Your task to perform on an android device: What's a good restaurant in Sacramento? Image 0: 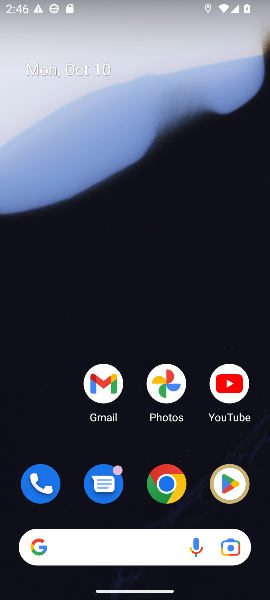
Step 0: click (182, 491)
Your task to perform on an android device: What's a good restaurant in Sacramento? Image 1: 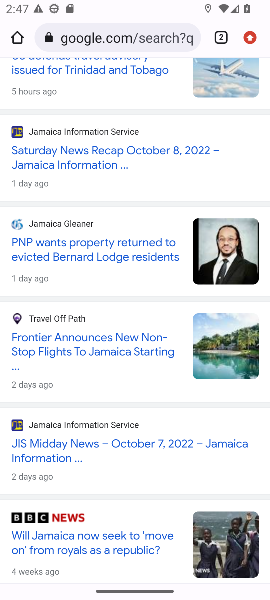
Step 1: drag from (192, 134) to (188, 462)
Your task to perform on an android device: What's a good restaurant in Sacramento? Image 2: 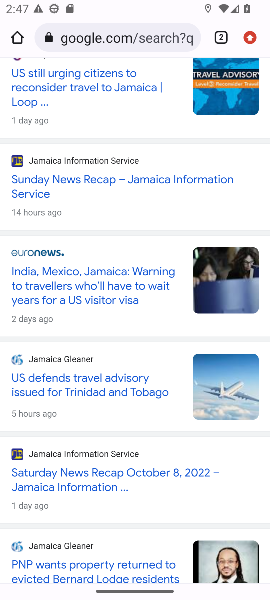
Step 2: drag from (96, 116) to (127, 390)
Your task to perform on an android device: What's a good restaurant in Sacramento? Image 3: 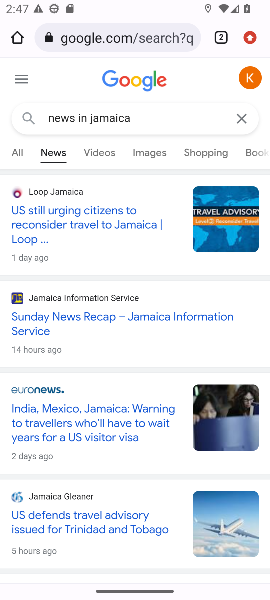
Step 3: click (142, 42)
Your task to perform on an android device: What's a good restaurant in Sacramento? Image 4: 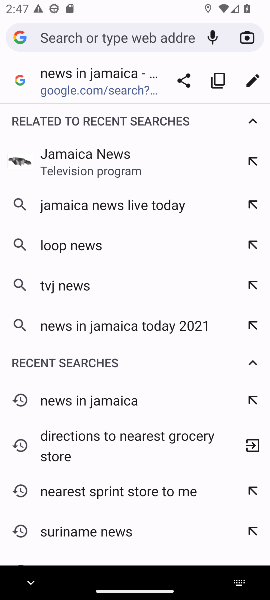
Step 4: type "good restaurant in sacramento"
Your task to perform on an android device: What's a good restaurant in Sacramento? Image 5: 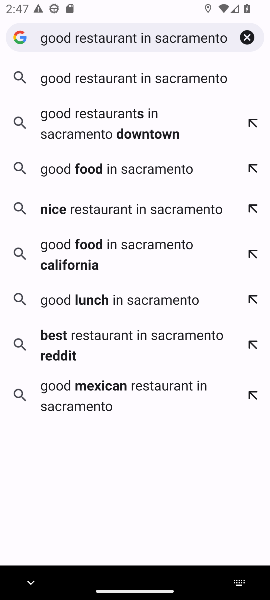
Step 5: click (109, 133)
Your task to perform on an android device: What's a good restaurant in Sacramento? Image 6: 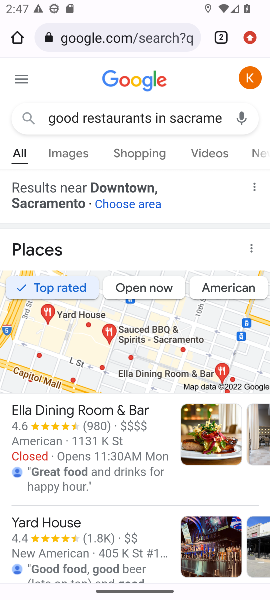
Step 6: task complete